Your task to perform on an android device: Turn off the flashlight Image 0: 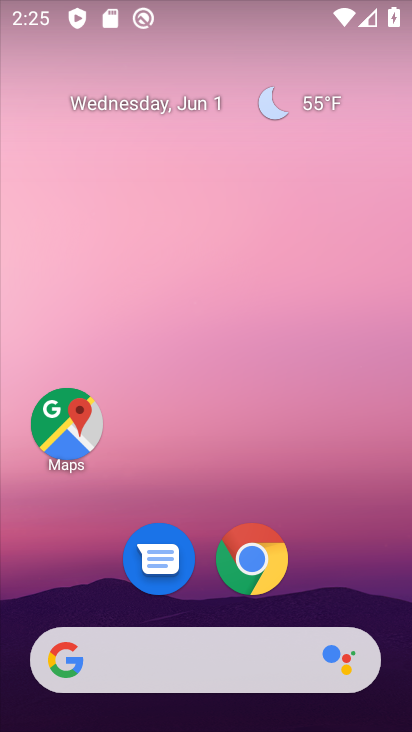
Step 0: task complete